Your task to perform on an android device: Open accessibility settings Image 0: 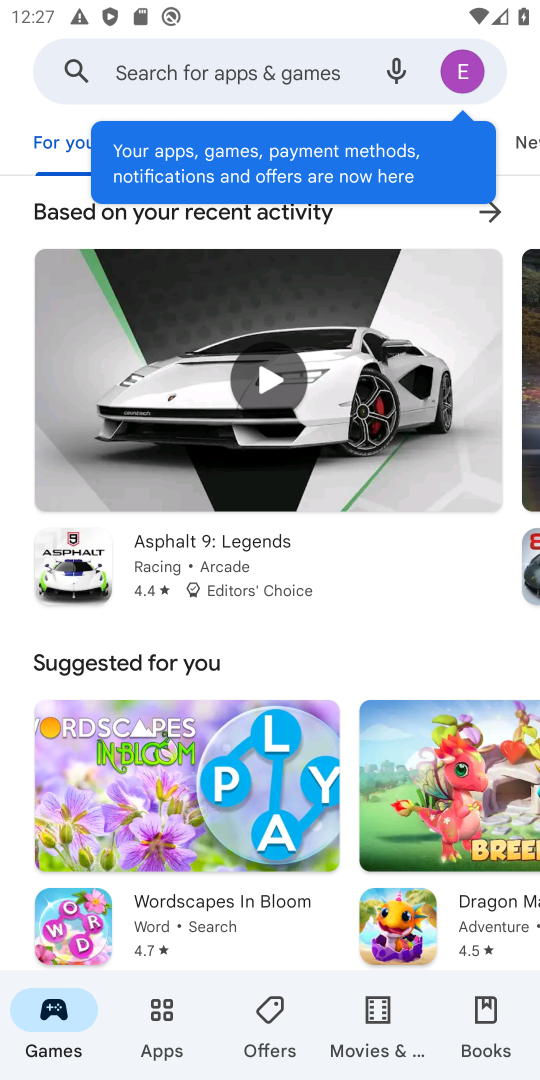
Step 0: press home button
Your task to perform on an android device: Open accessibility settings Image 1: 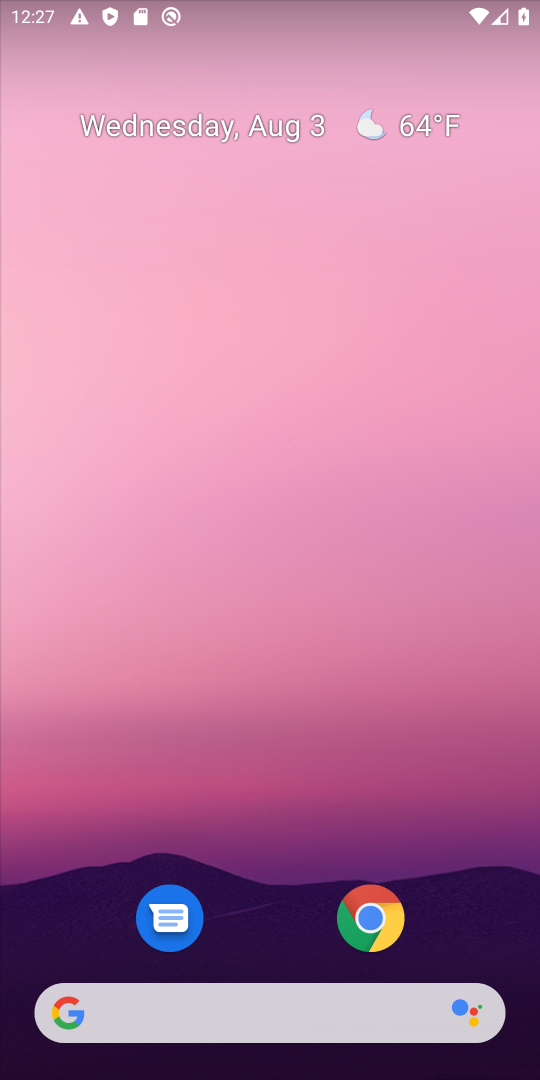
Step 1: drag from (315, 553) to (356, 31)
Your task to perform on an android device: Open accessibility settings Image 2: 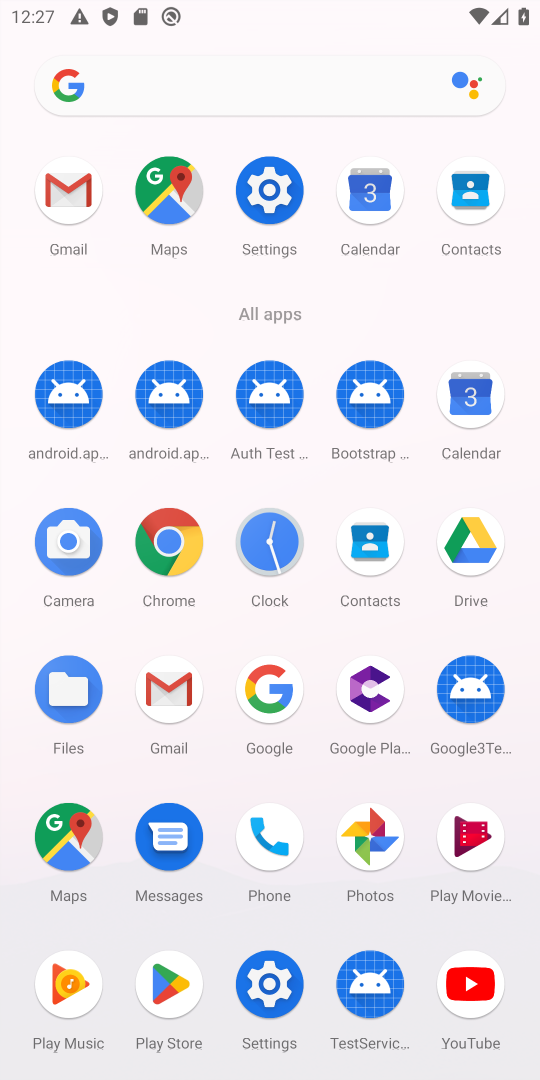
Step 2: click (271, 185)
Your task to perform on an android device: Open accessibility settings Image 3: 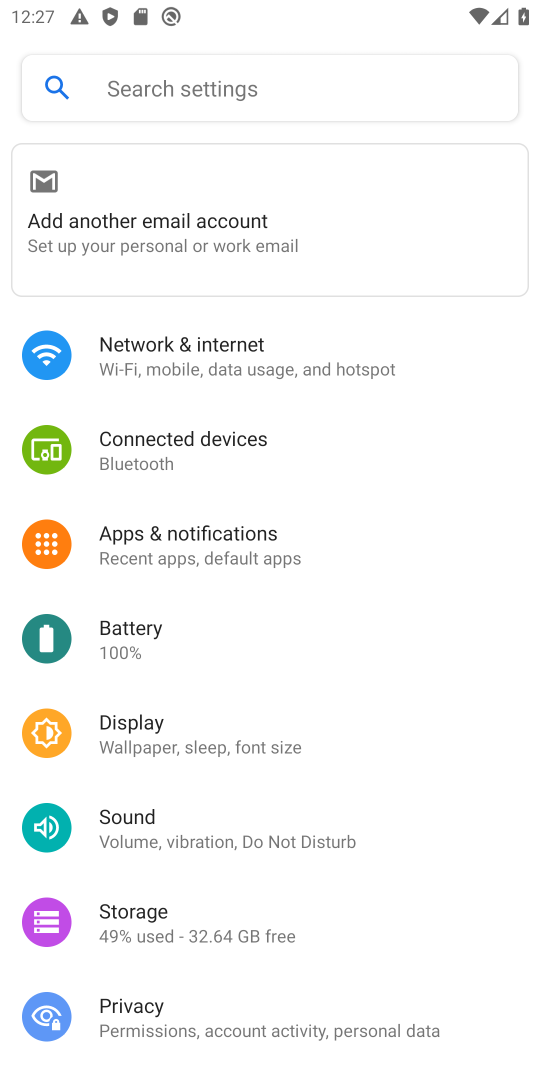
Step 3: drag from (268, 879) to (351, 38)
Your task to perform on an android device: Open accessibility settings Image 4: 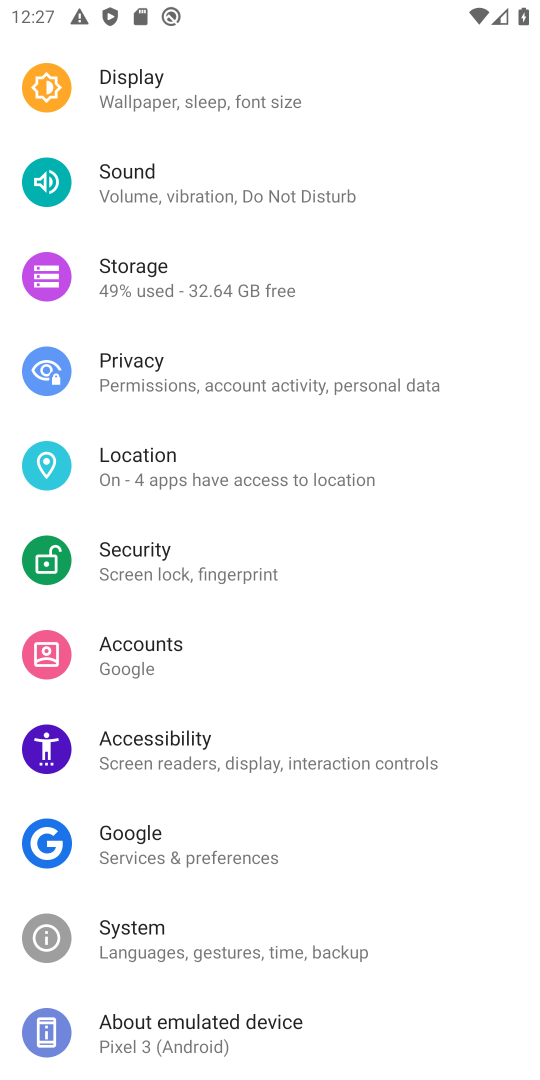
Step 4: click (240, 743)
Your task to perform on an android device: Open accessibility settings Image 5: 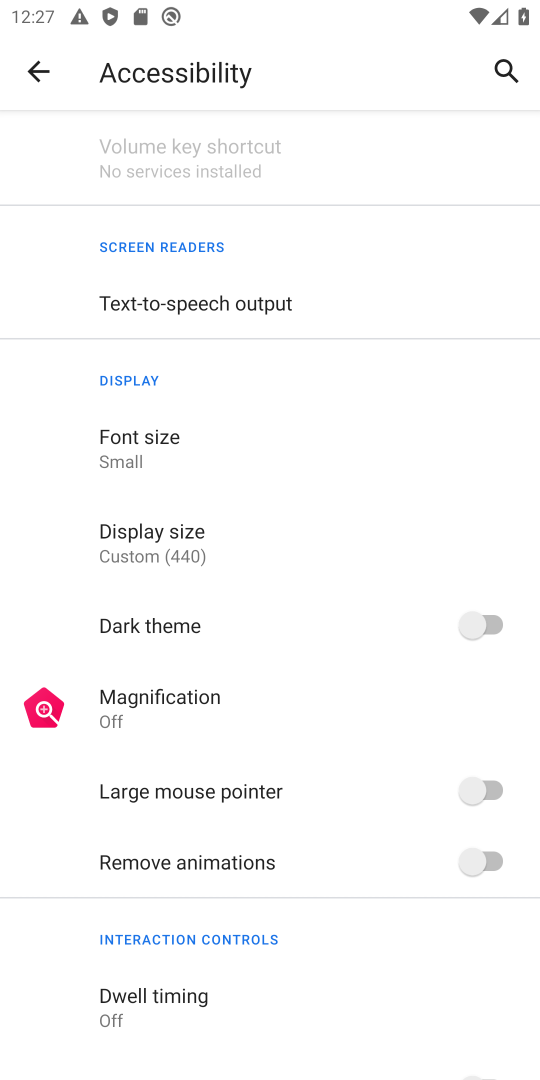
Step 5: task complete